Your task to perform on an android device: Search for Italian restaurants on Maps Image 0: 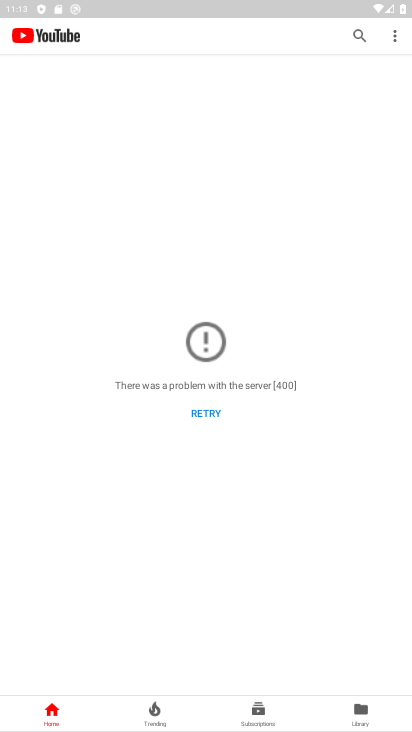
Step 0: press home button
Your task to perform on an android device: Search for Italian restaurants on Maps Image 1: 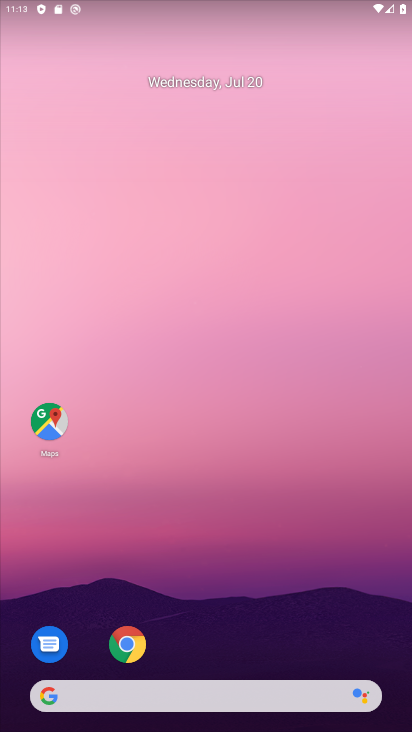
Step 1: click (52, 417)
Your task to perform on an android device: Search for Italian restaurants on Maps Image 2: 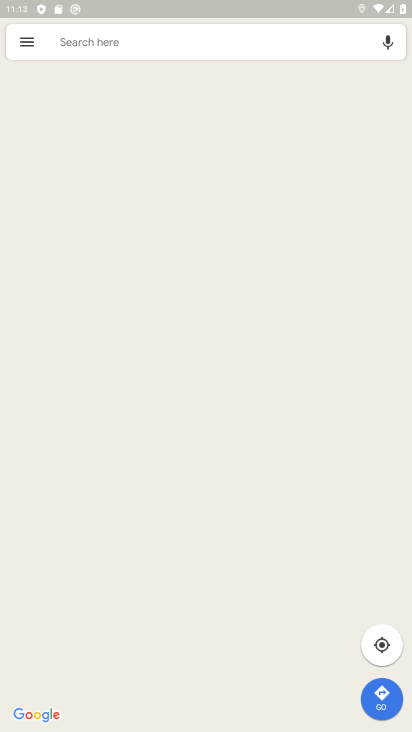
Step 2: click (104, 33)
Your task to perform on an android device: Search for Italian restaurants on Maps Image 3: 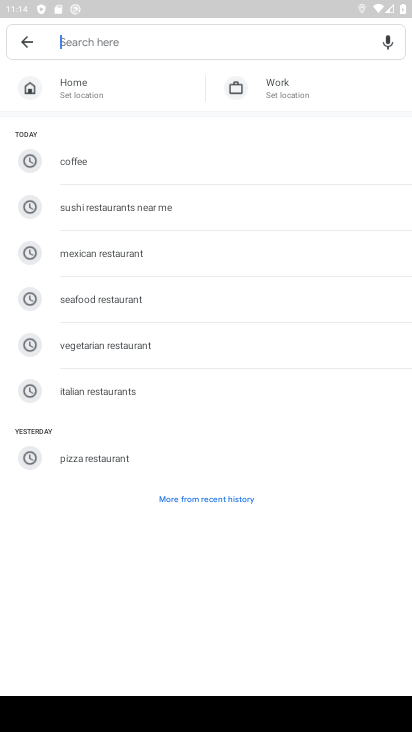
Step 3: click (110, 401)
Your task to perform on an android device: Search for Italian restaurants on Maps Image 4: 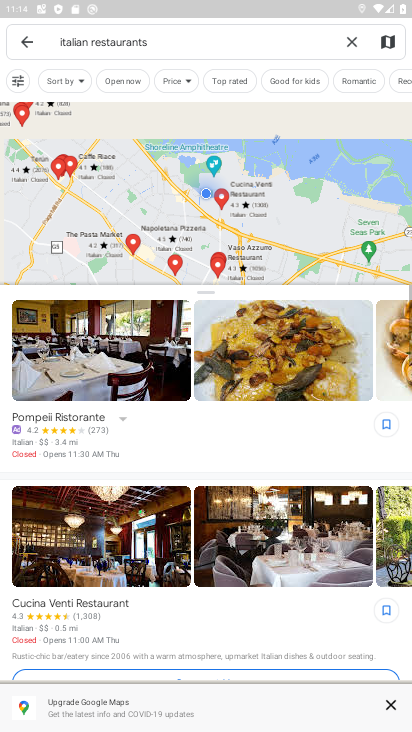
Step 4: task complete